Your task to perform on an android device: Open Google Chrome and open the bookmarks view Image 0: 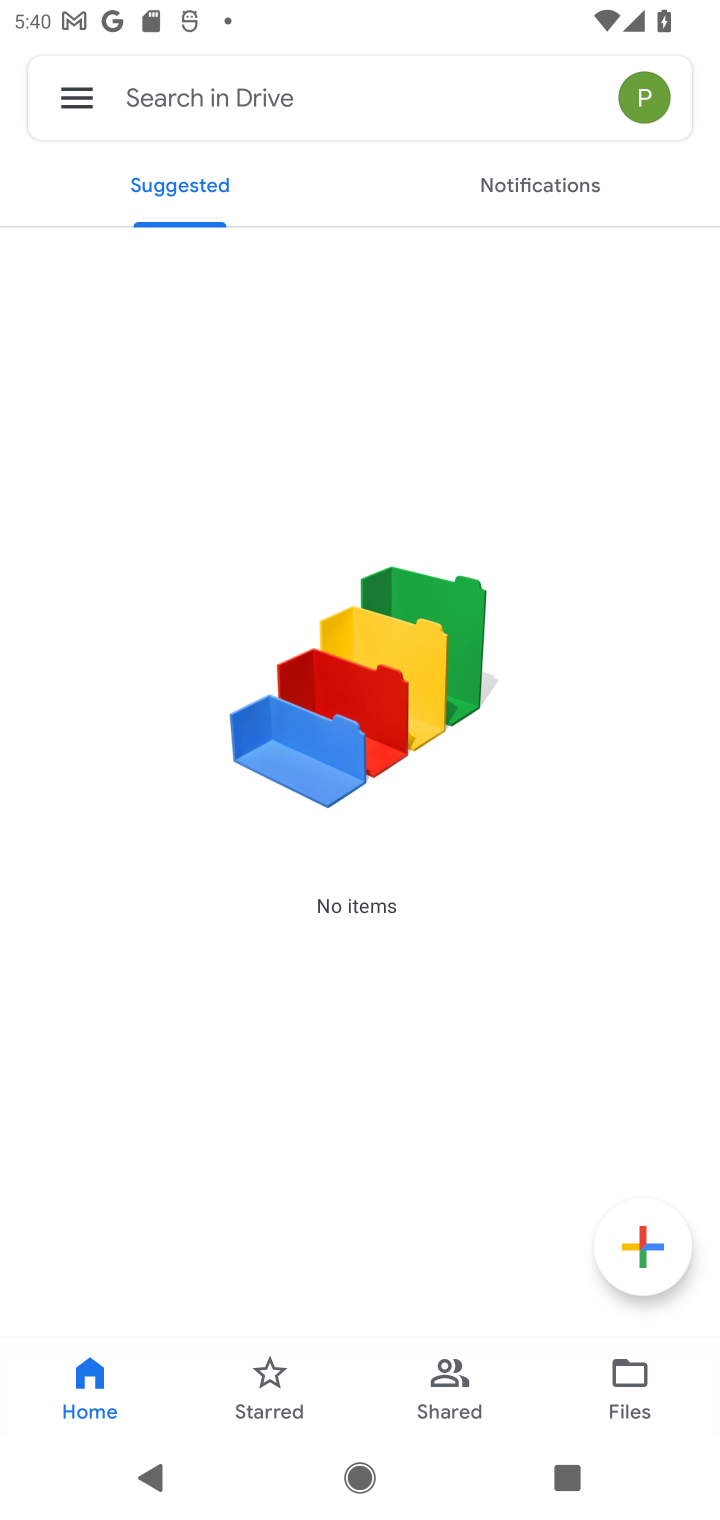
Step 0: press home button
Your task to perform on an android device: Open Google Chrome and open the bookmarks view Image 1: 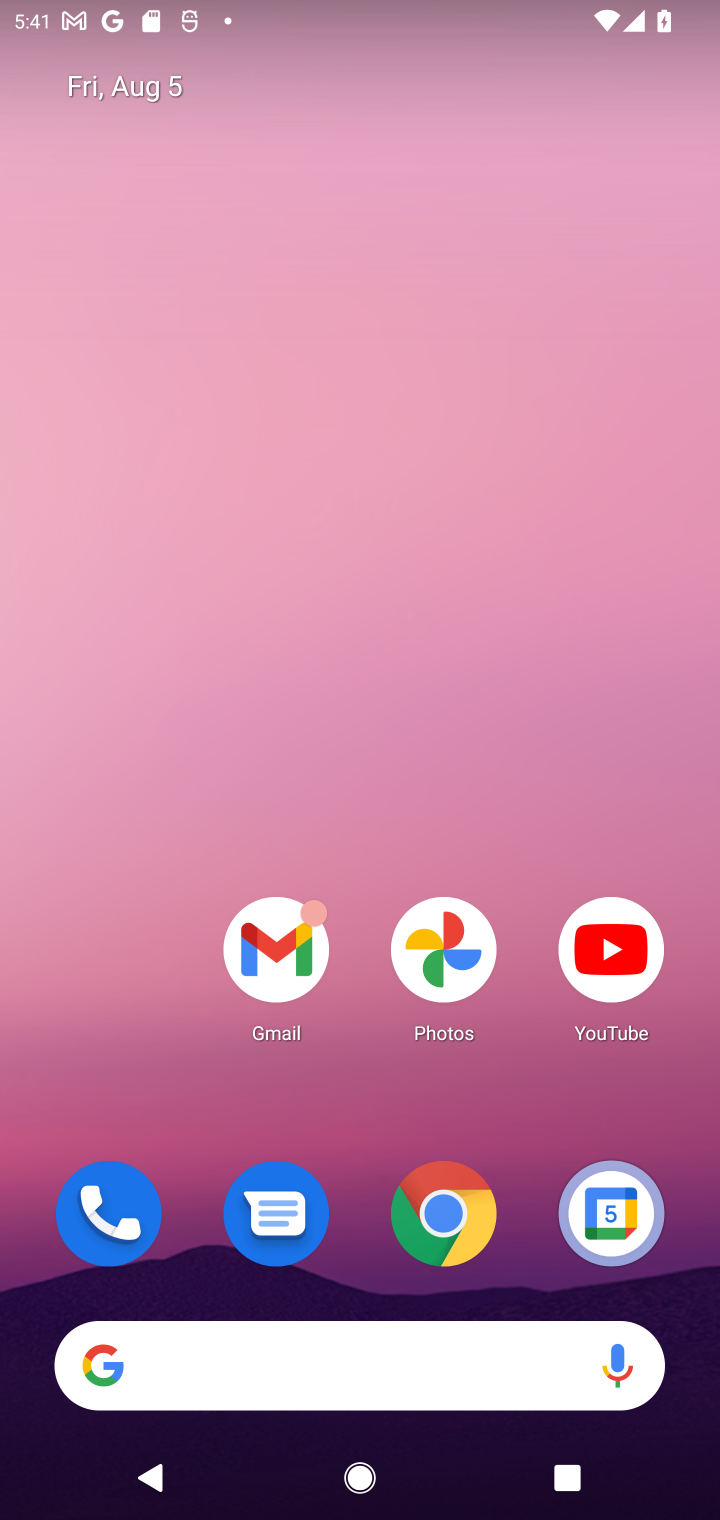
Step 1: click (460, 1218)
Your task to perform on an android device: Open Google Chrome and open the bookmarks view Image 2: 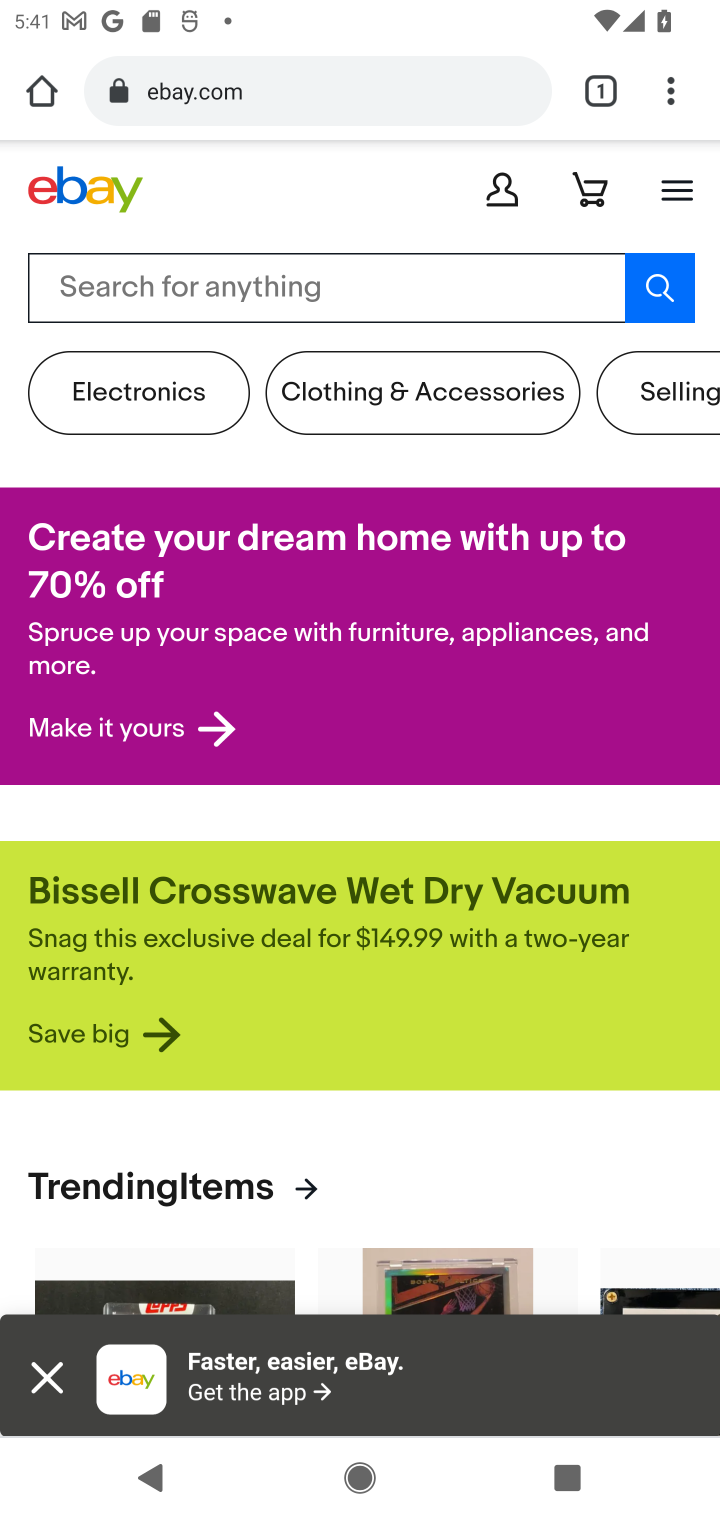
Step 2: click (674, 67)
Your task to perform on an android device: Open Google Chrome and open the bookmarks view Image 3: 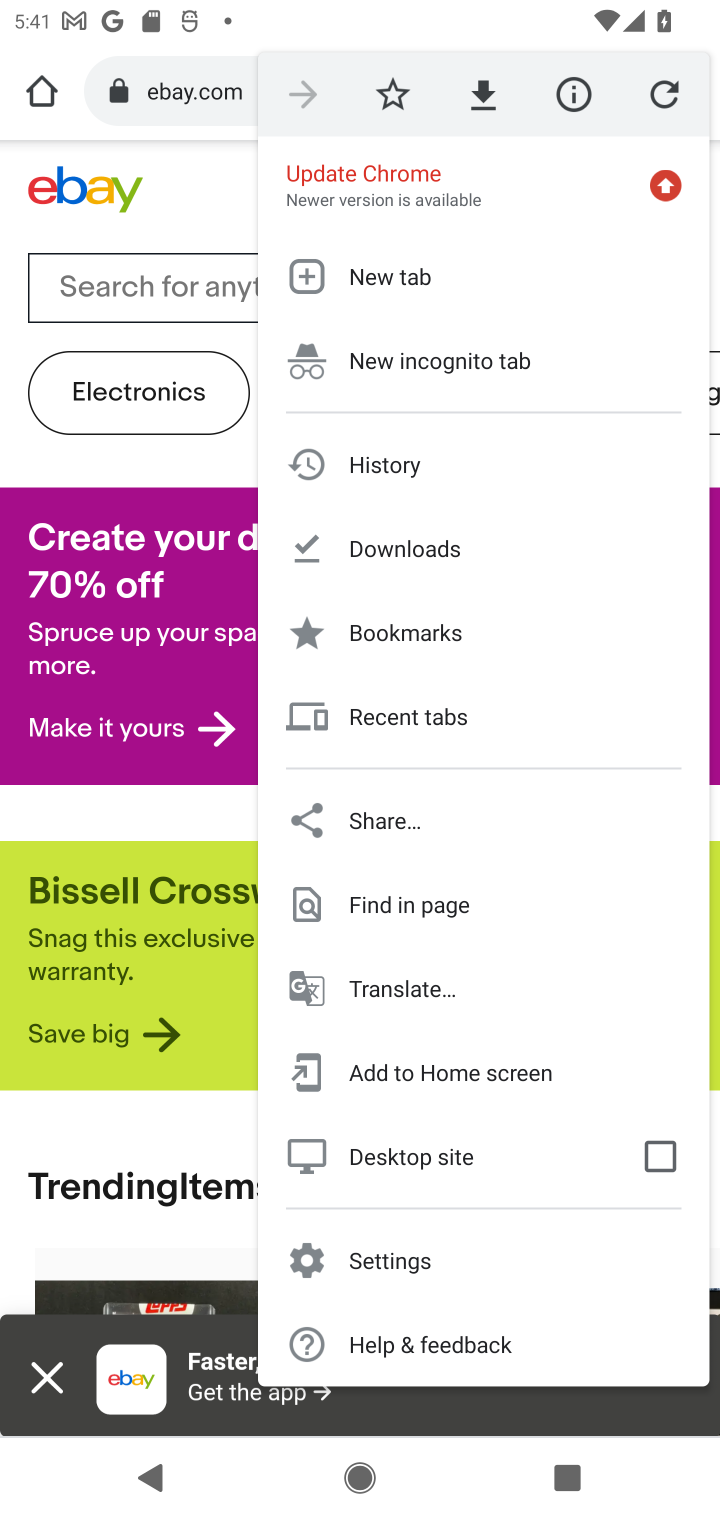
Step 3: click (431, 652)
Your task to perform on an android device: Open Google Chrome and open the bookmarks view Image 4: 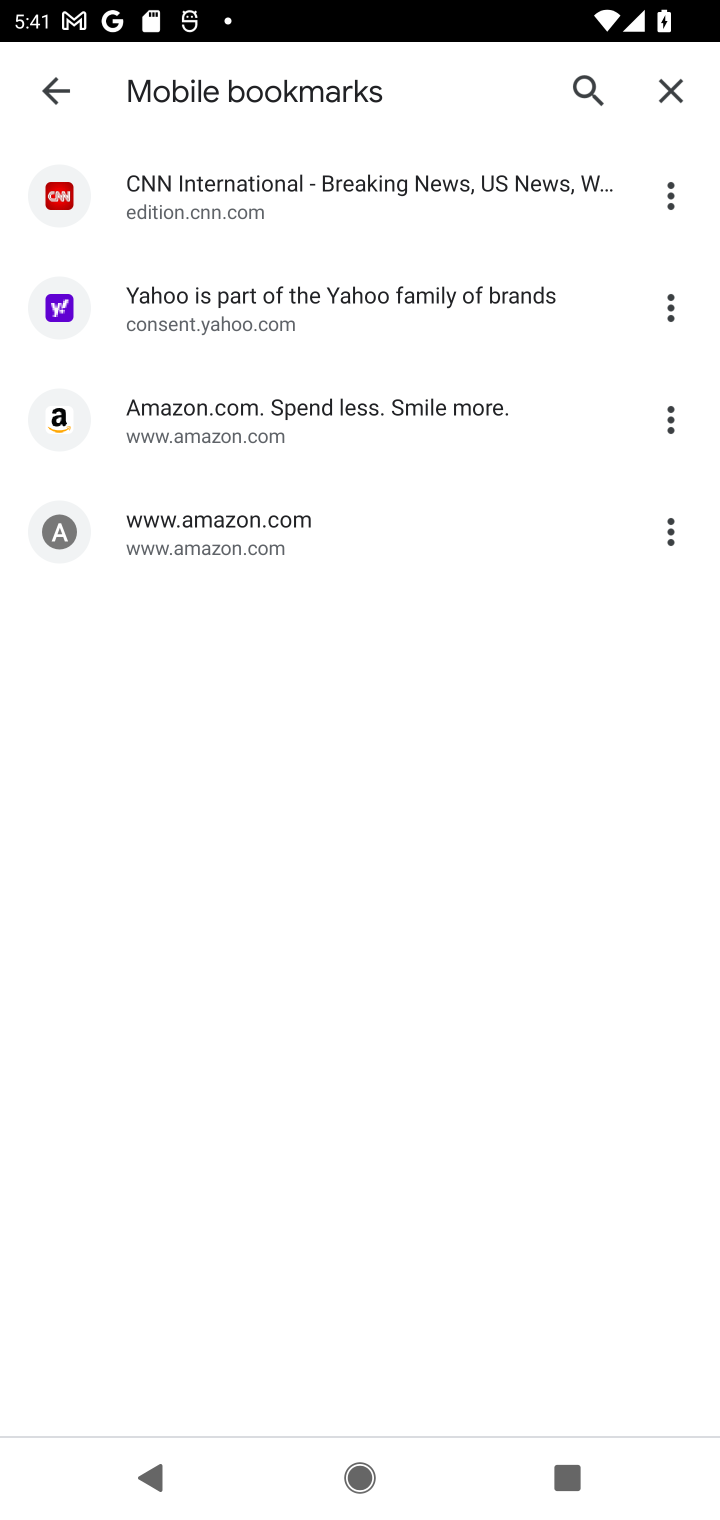
Step 4: task complete